Your task to perform on an android device: Show me productivity apps on the Play Store Image 0: 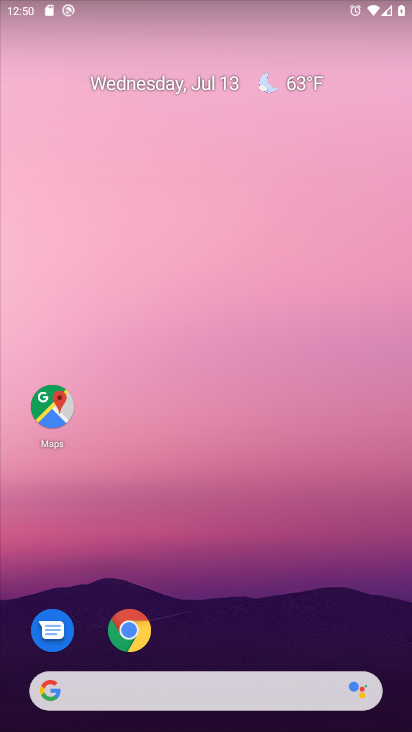
Step 0: drag from (234, 676) to (228, 216)
Your task to perform on an android device: Show me productivity apps on the Play Store Image 1: 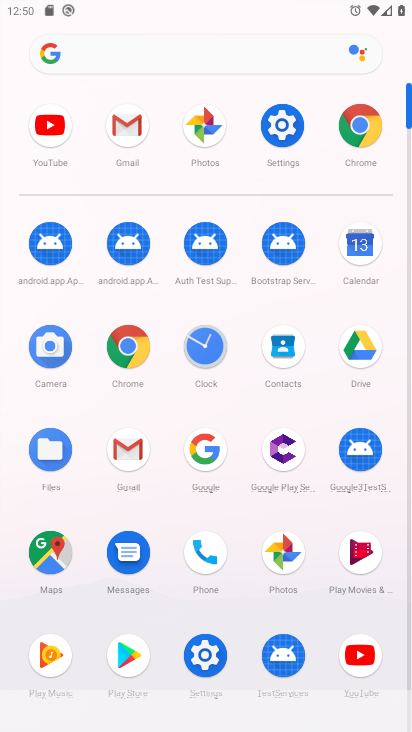
Step 1: click (124, 652)
Your task to perform on an android device: Show me productivity apps on the Play Store Image 2: 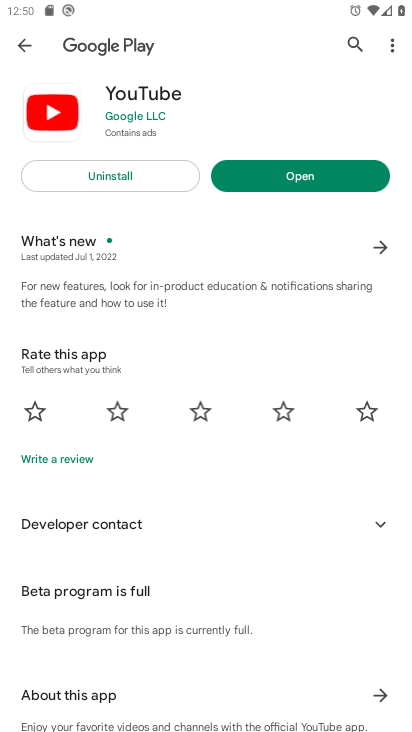
Step 2: click (21, 44)
Your task to perform on an android device: Show me productivity apps on the Play Store Image 3: 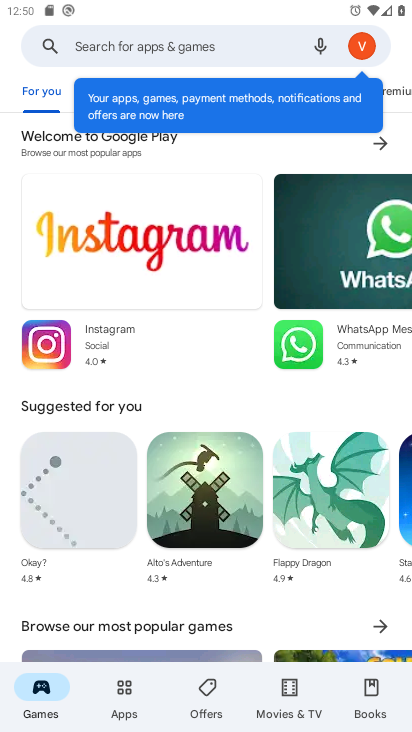
Step 3: click (134, 693)
Your task to perform on an android device: Show me productivity apps on the Play Store Image 4: 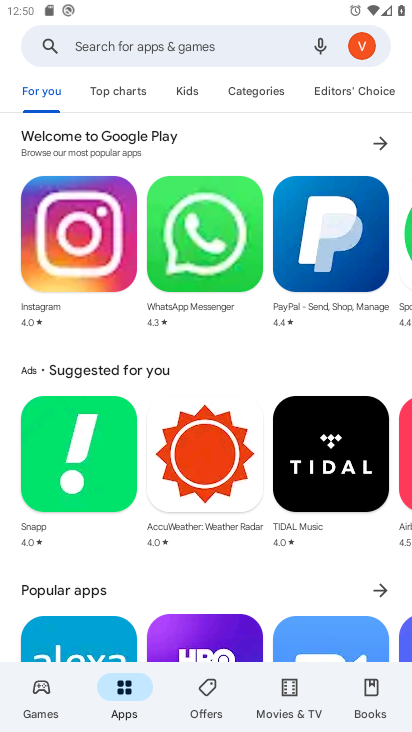
Step 4: click (252, 91)
Your task to perform on an android device: Show me productivity apps on the Play Store Image 5: 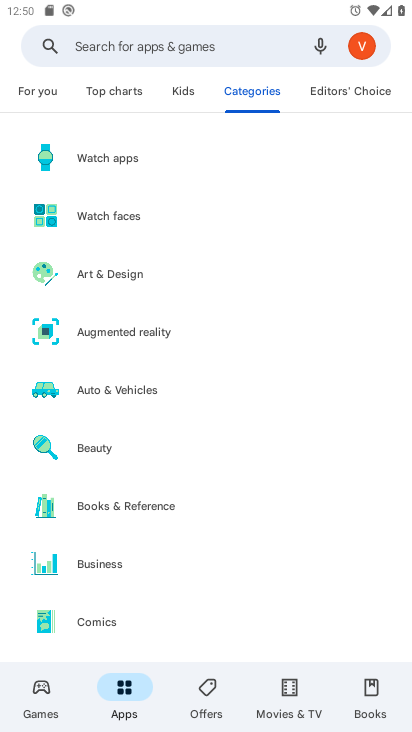
Step 5: drag from (174, 628) to (157, 169)
Your task to perform on an android device: Show me productivity apps on the Play Store Image 6: 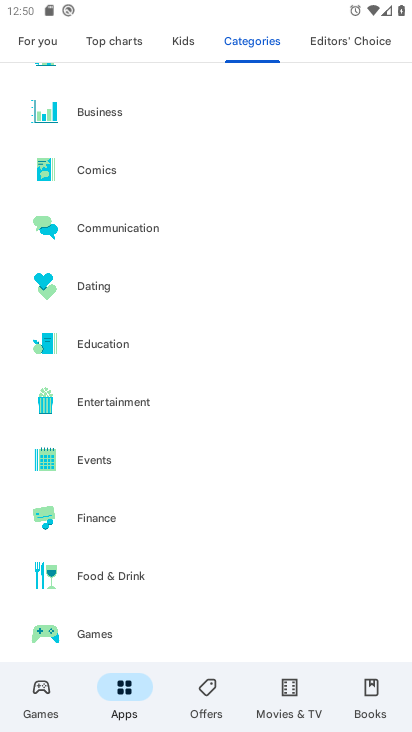
Step 6: drag from (167, 605) to (175, 184)
Your task to perform on an android device: Show me productivity apps on the Play Store Image 7: 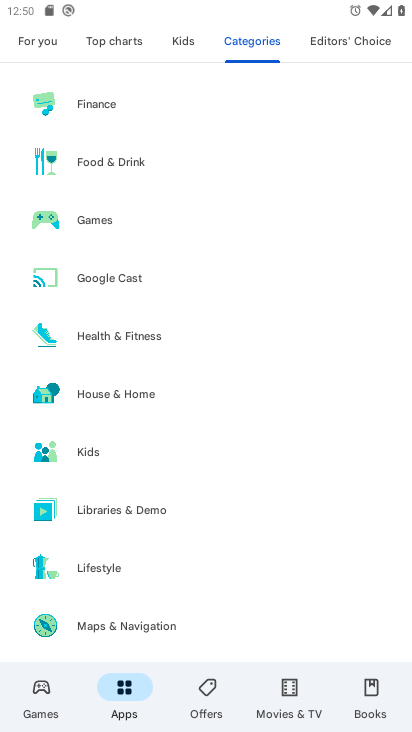
Step 7: drag from (140, 576) to (173, 77)
Your task to perform on an android device: Show me productivity apps on the Play Store Image 8: 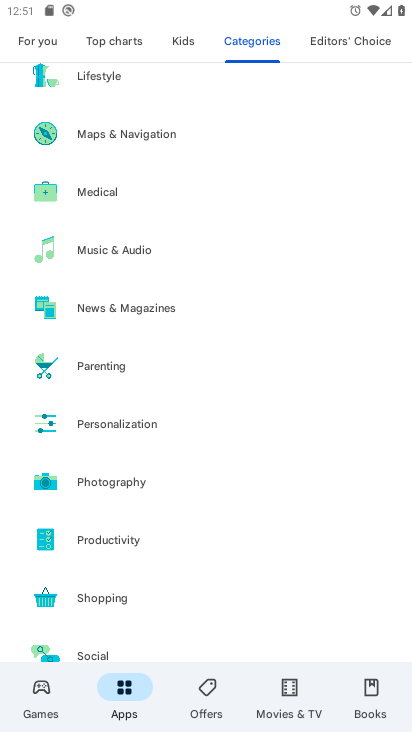
Step 8: click (104, 538)
Your task to perform on an android device: Show me productivity apps on the Play Store Image 9: 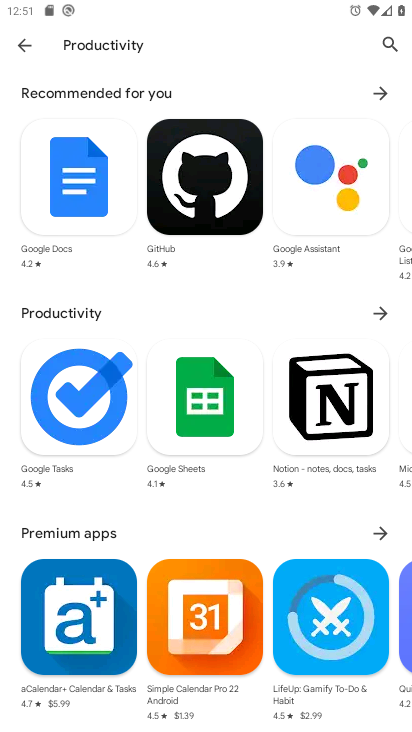
Step 9: task complete